Your task to perform on an android device: open app "PUBG MOBILE" (install if not already installed) Image 0: 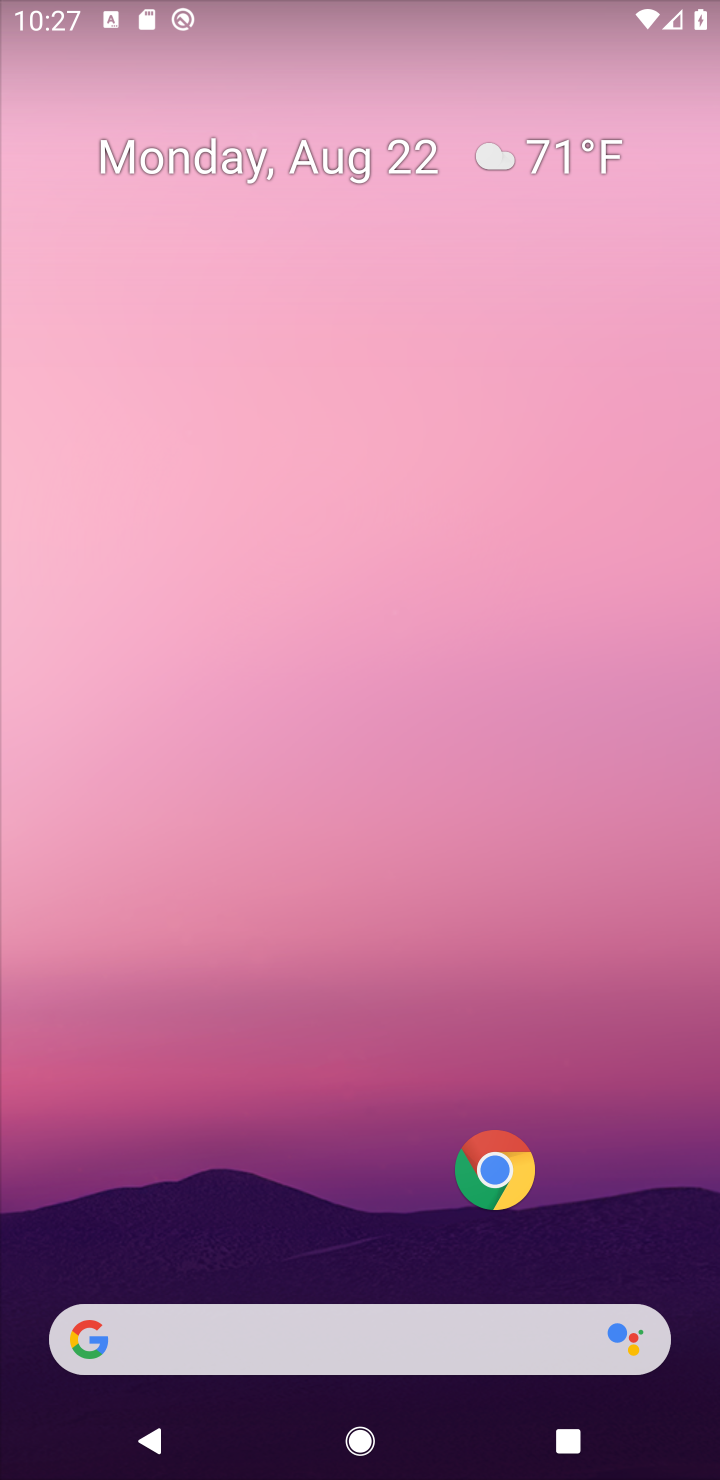
Step 0: drag from (304, 1224) to (422, 30)
Your task to perform on an android device: open app "PUBG MOBILE" (install if not already installed) Image 1: 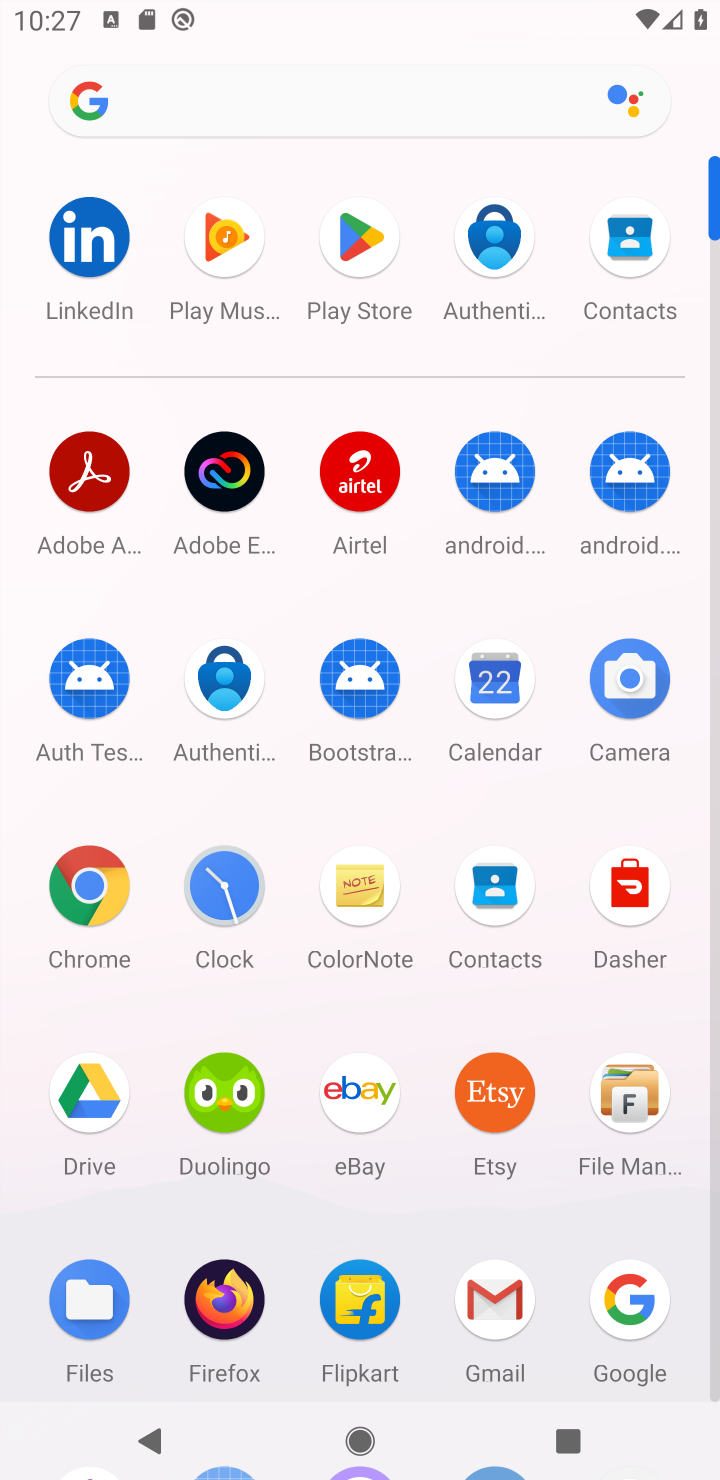
Step 1: click (352, 237)
Your task to perform on an android device: open app "PUBG MOBILE" (install if not already installed) Image 2: 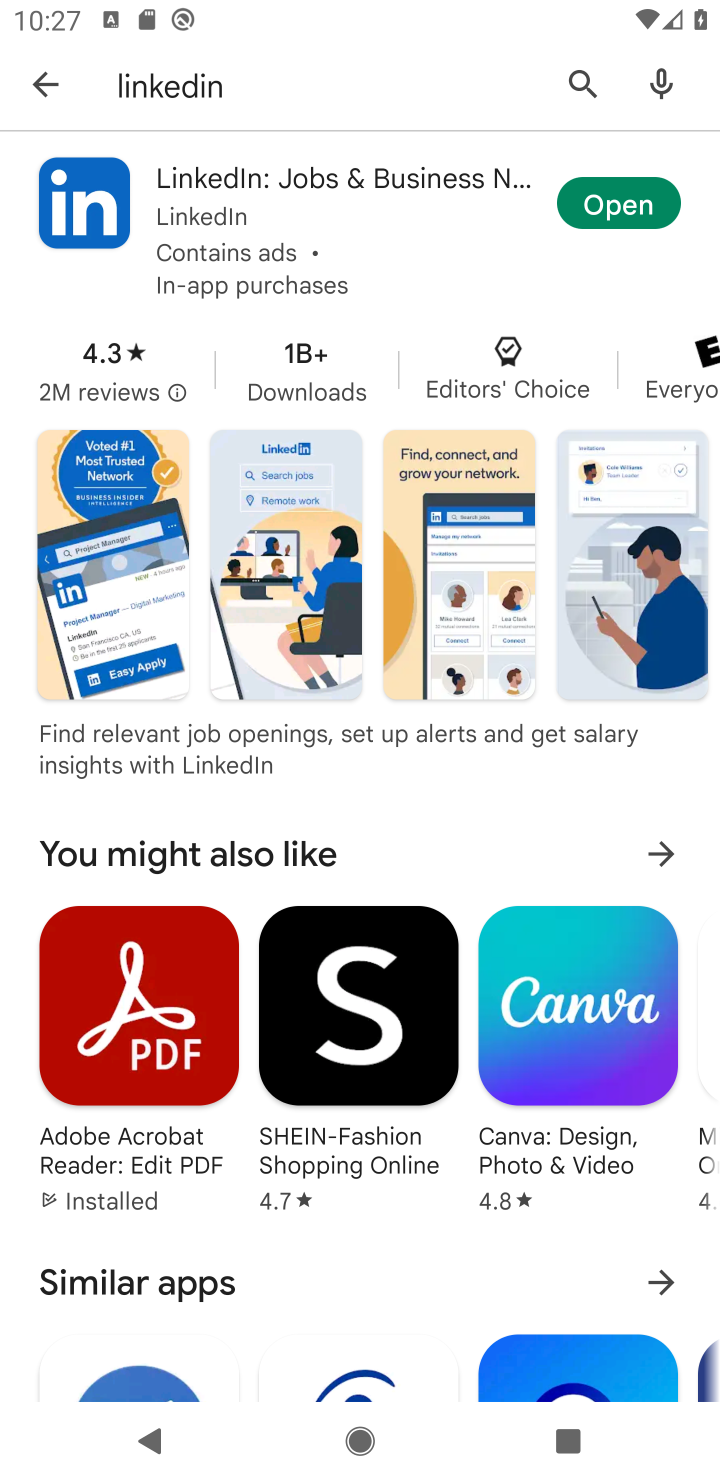
Step 2: click (576, 96)
Your task to perform on an android device: open app "PUBG MOBILE" (install if not already installed) Image 3: 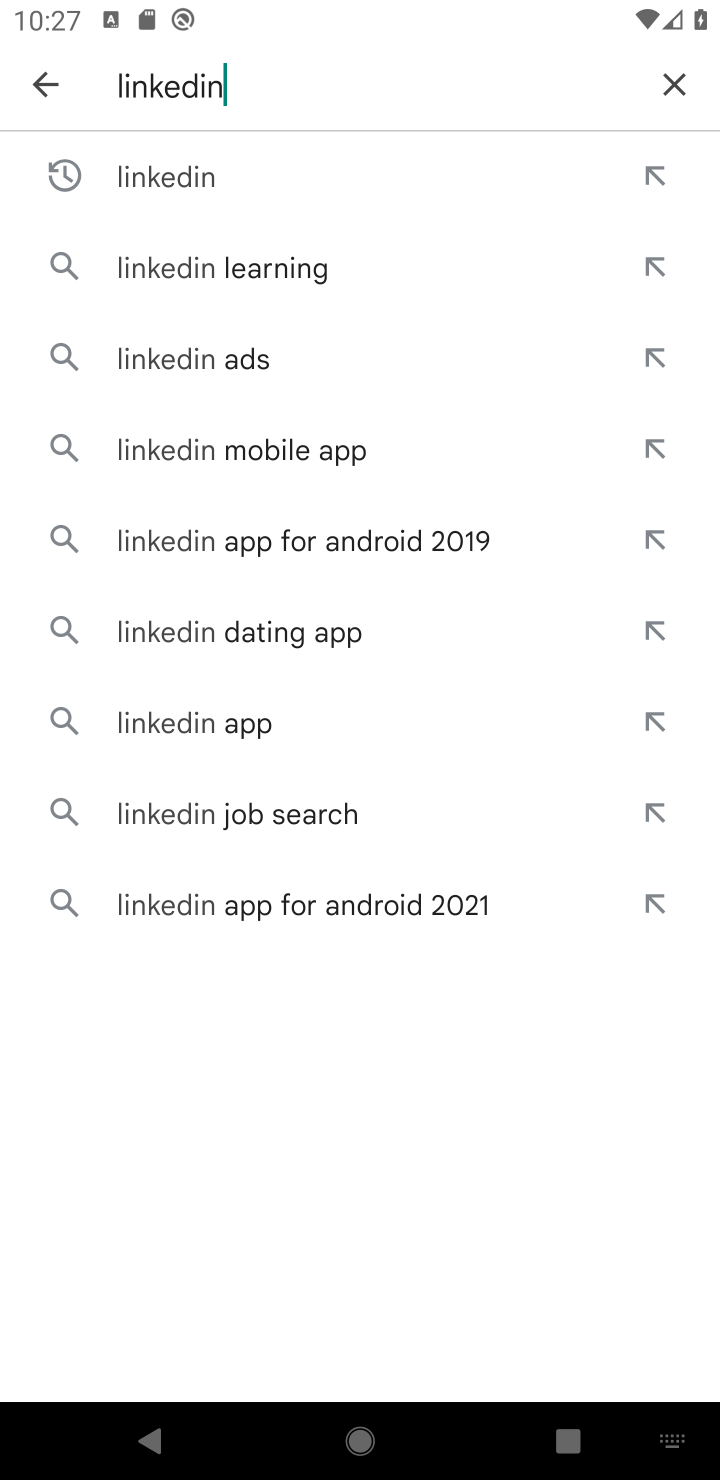
Step 3: click (676, 76)
Your task to perform on an android device: open app "PUBG MOBILE" (install if not already installed) Image 4: 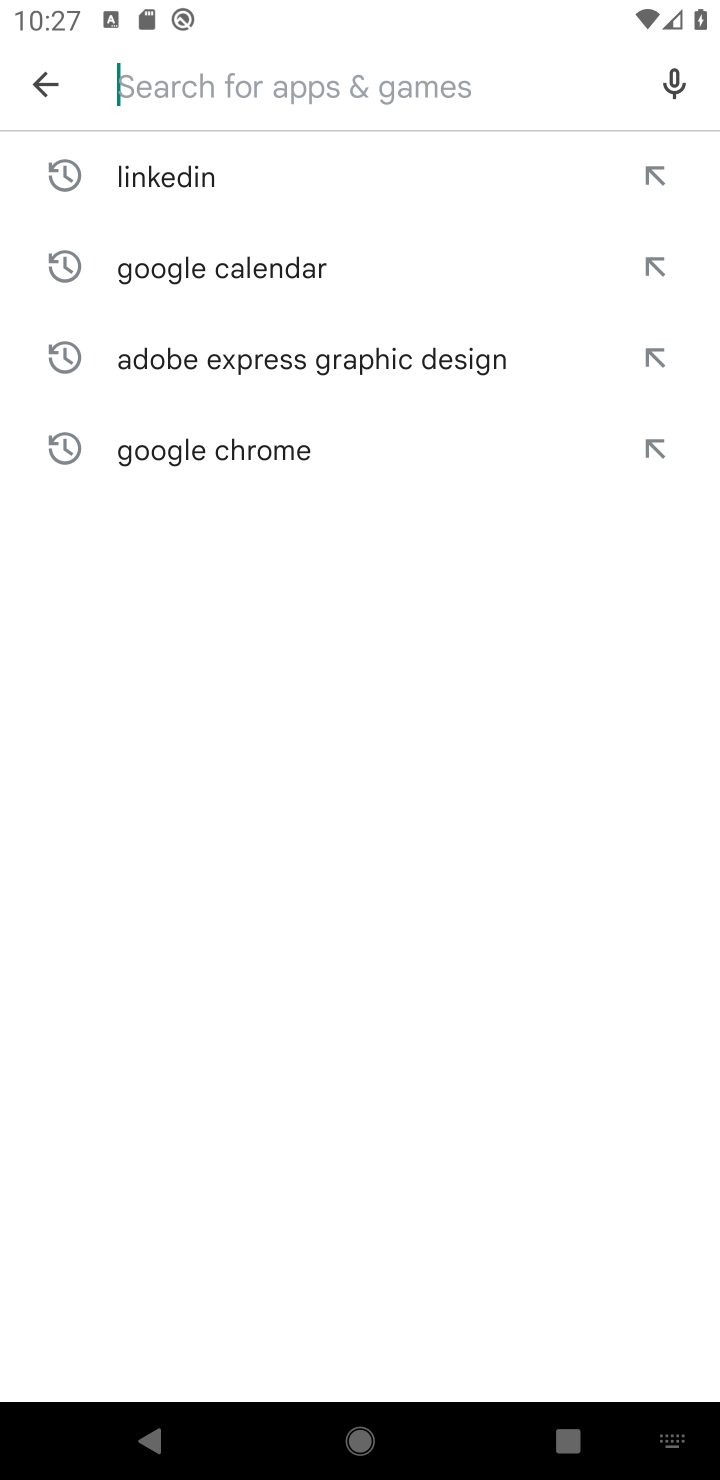
Step 4: click (277, 77)
Your task to perform on an android device: open app "PUBG MOBILE" (install if not already installed) Image 5: 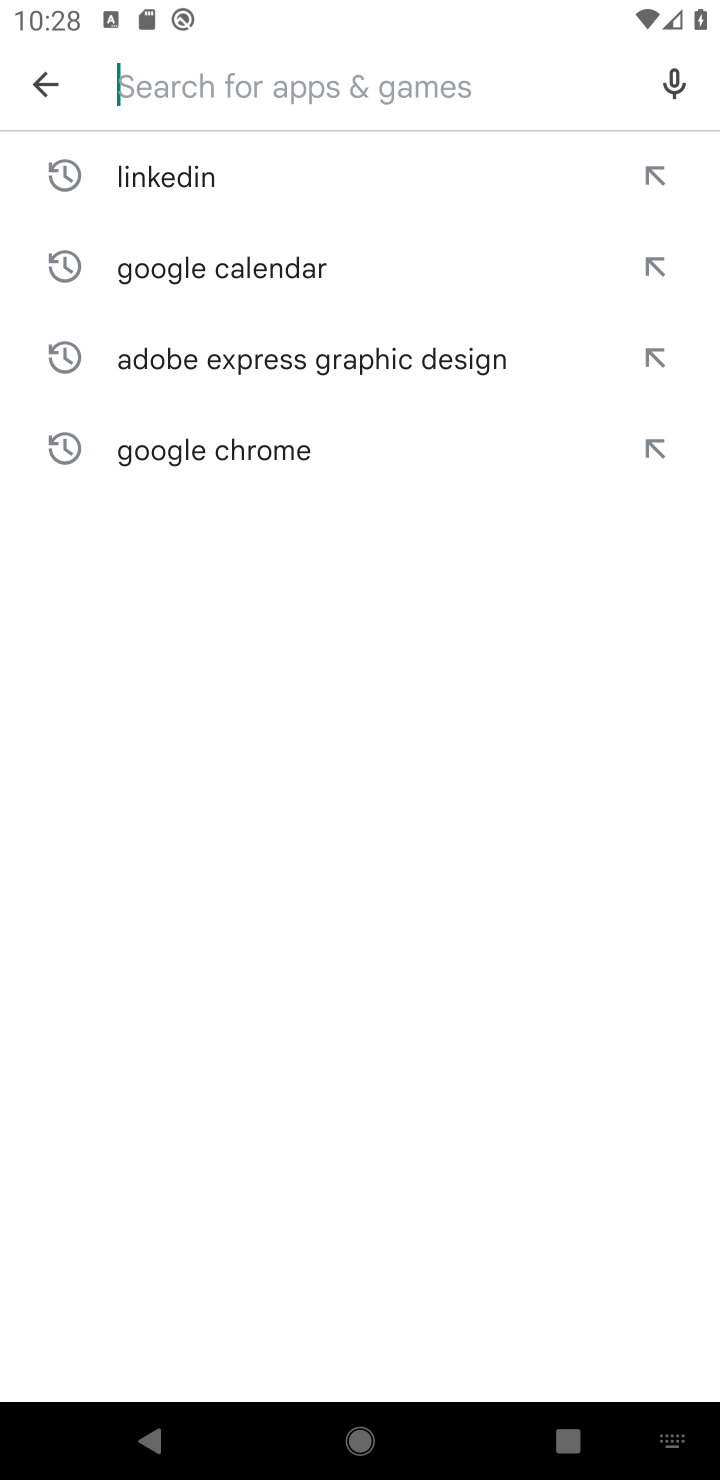
Step 5: type "pubgmobile"
Your task to perform on an android device: open app "PUBG MOBILE" (install if not already installed) Image 6: 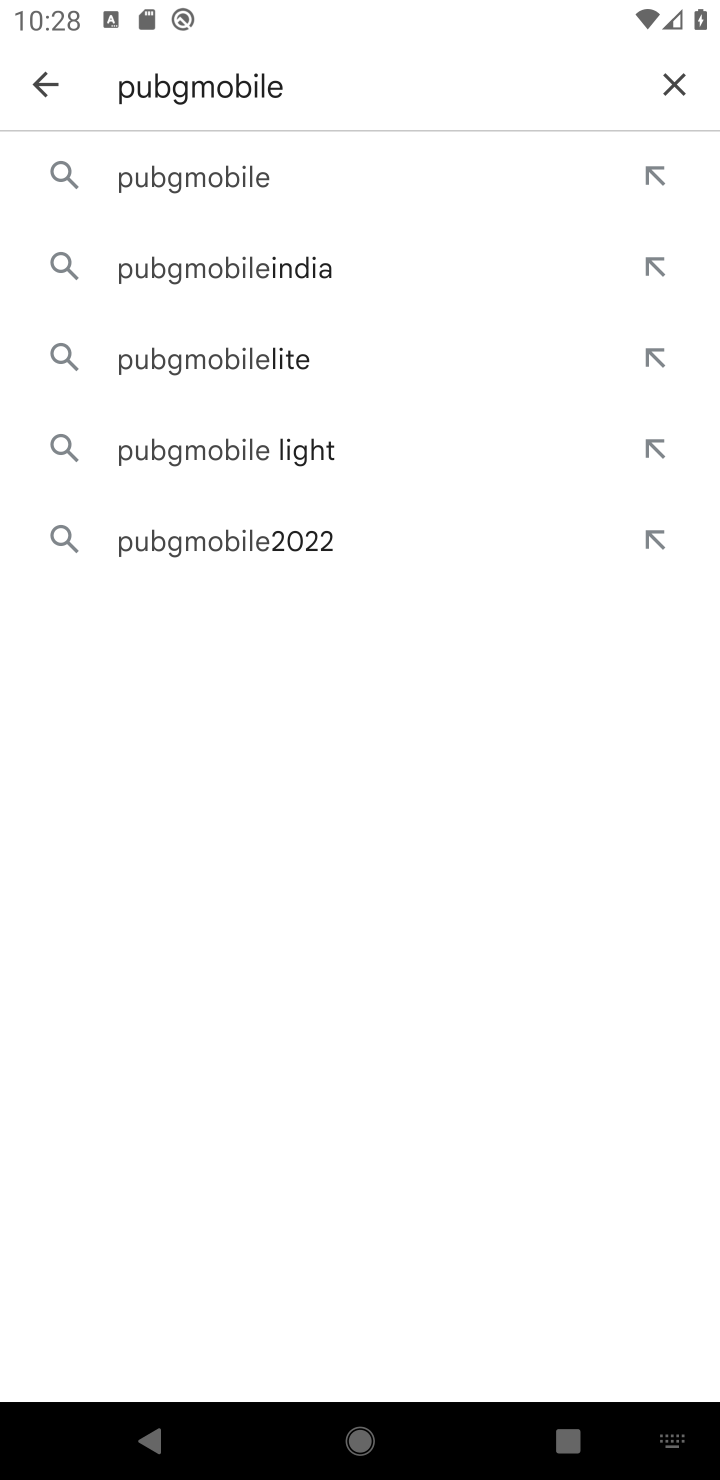
Step 6: click (217, 170)
Your task to perform on an android device: open app "PUBG MOBILE" (install if not already installed) Image 7: 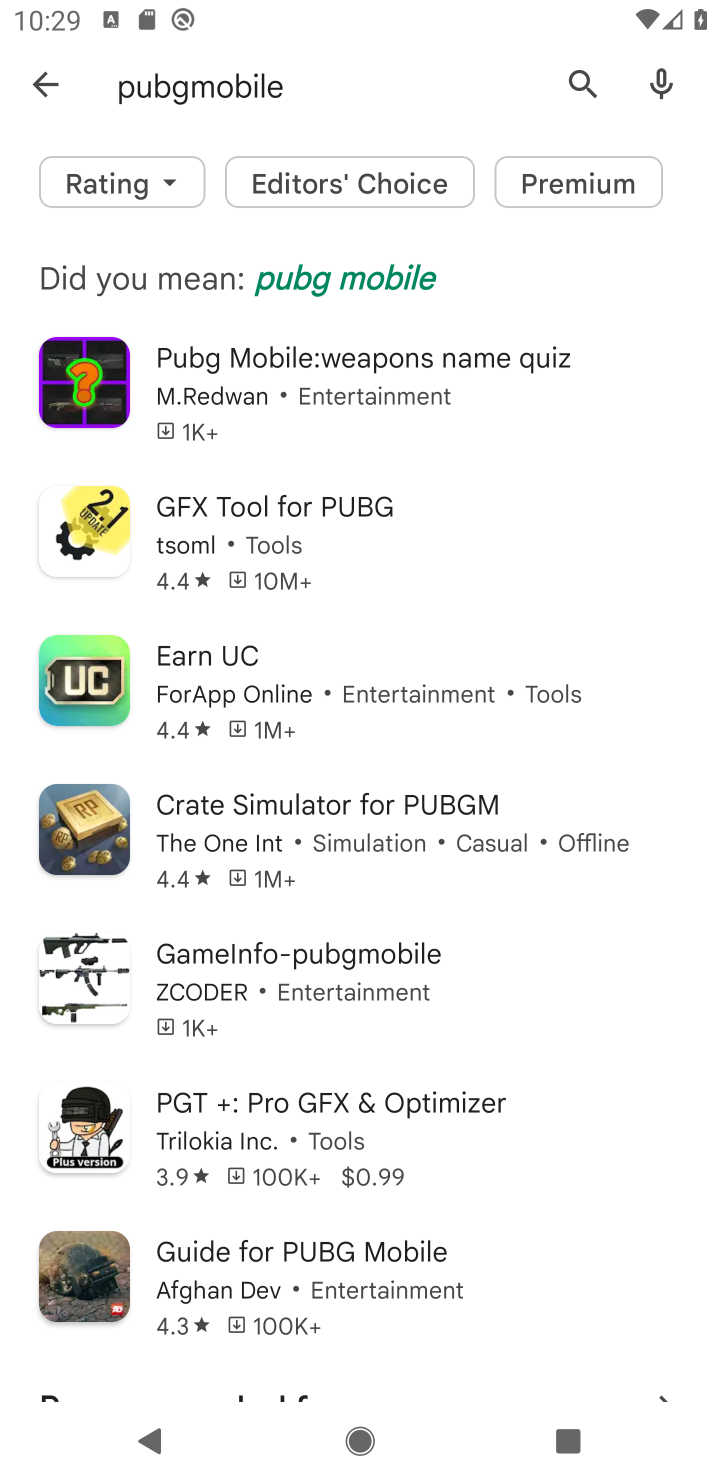
Step 7: task complete